Your task to perform on an android device: turn on bluetooth scan Image 0: 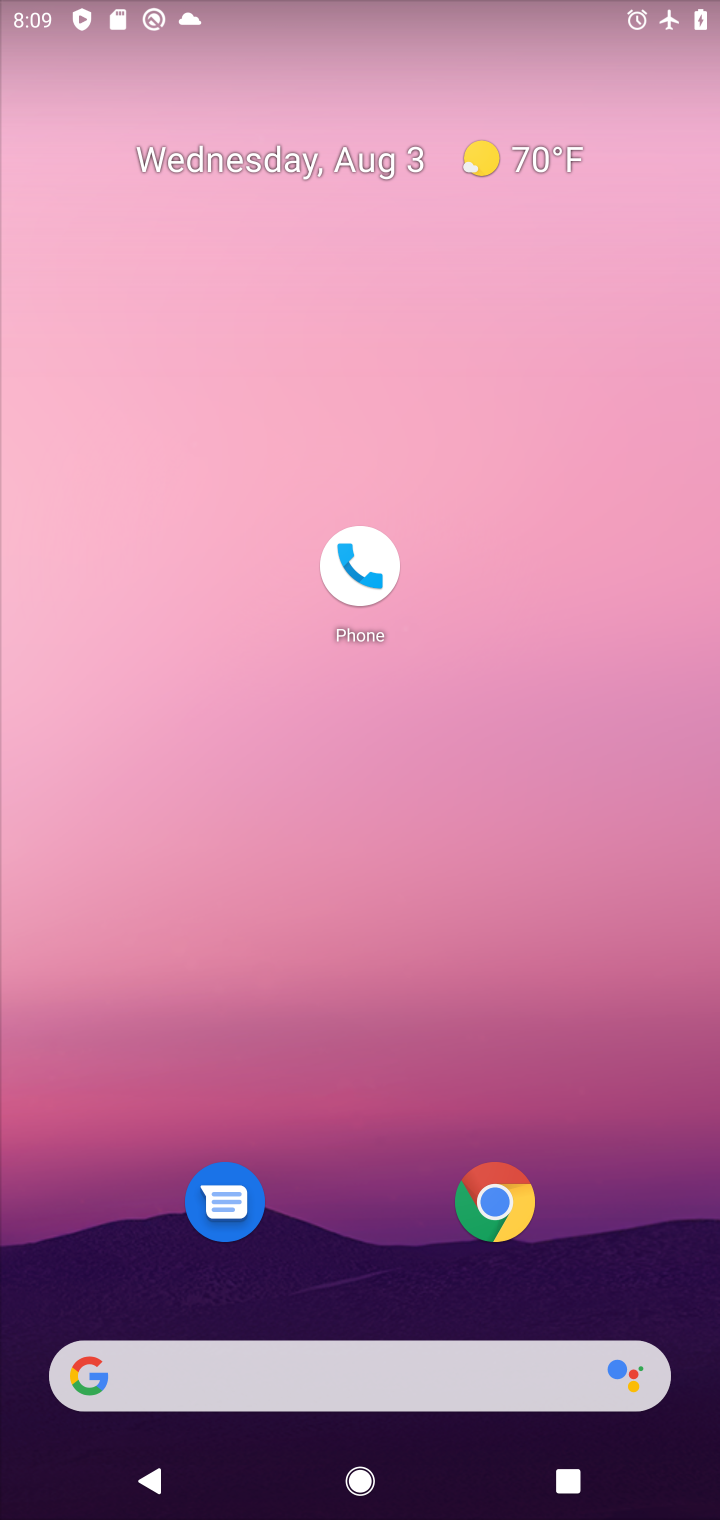
Step 0: drag from (283, 1384) to (467, 334)
Your task to perform on an android device: turn on bluetooth scan Image 1: 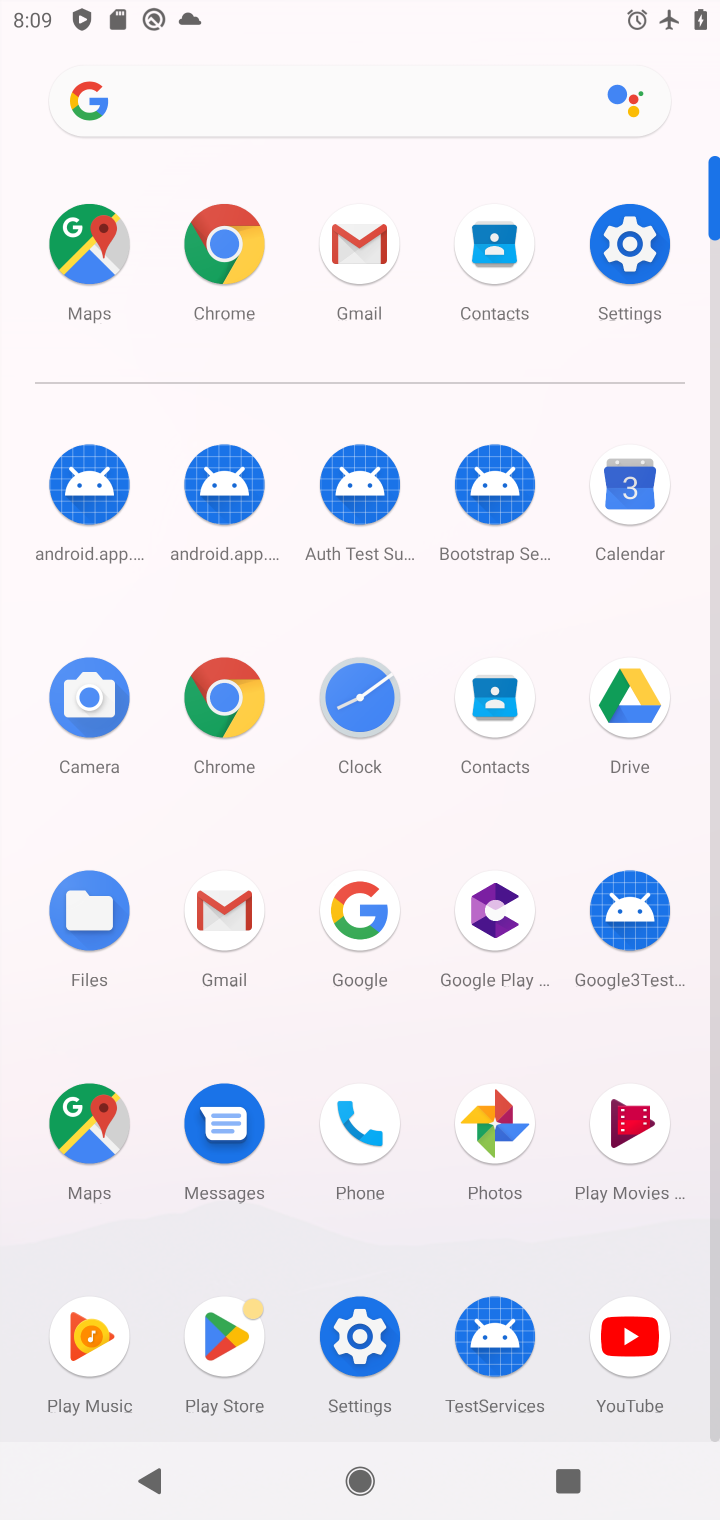
Step 1: click (627, 247)
Your task to perform on an android device: turn on bluetooth scan Image 2: 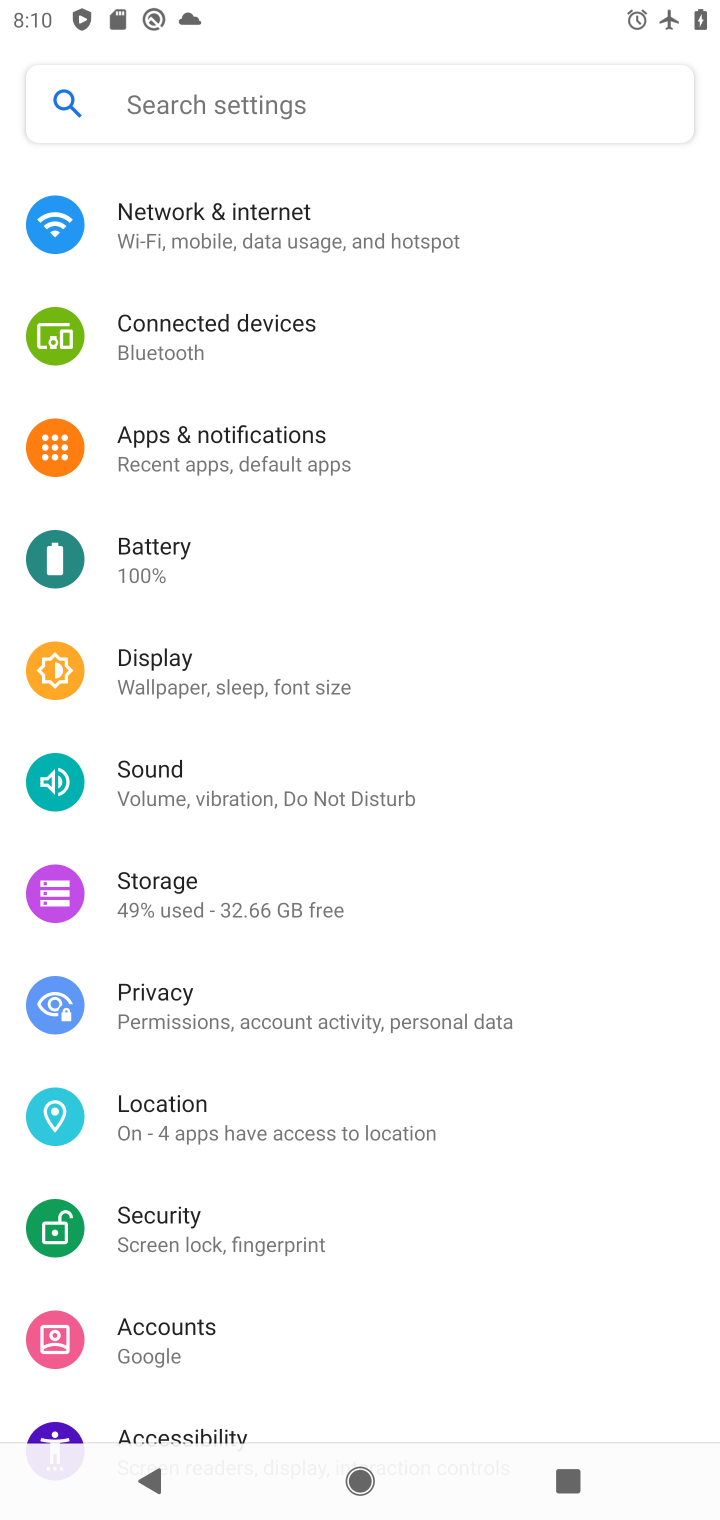
Step 2: click (201, 1113)
Your task to perform on an android device: turn on bluetooth scan Image 3: 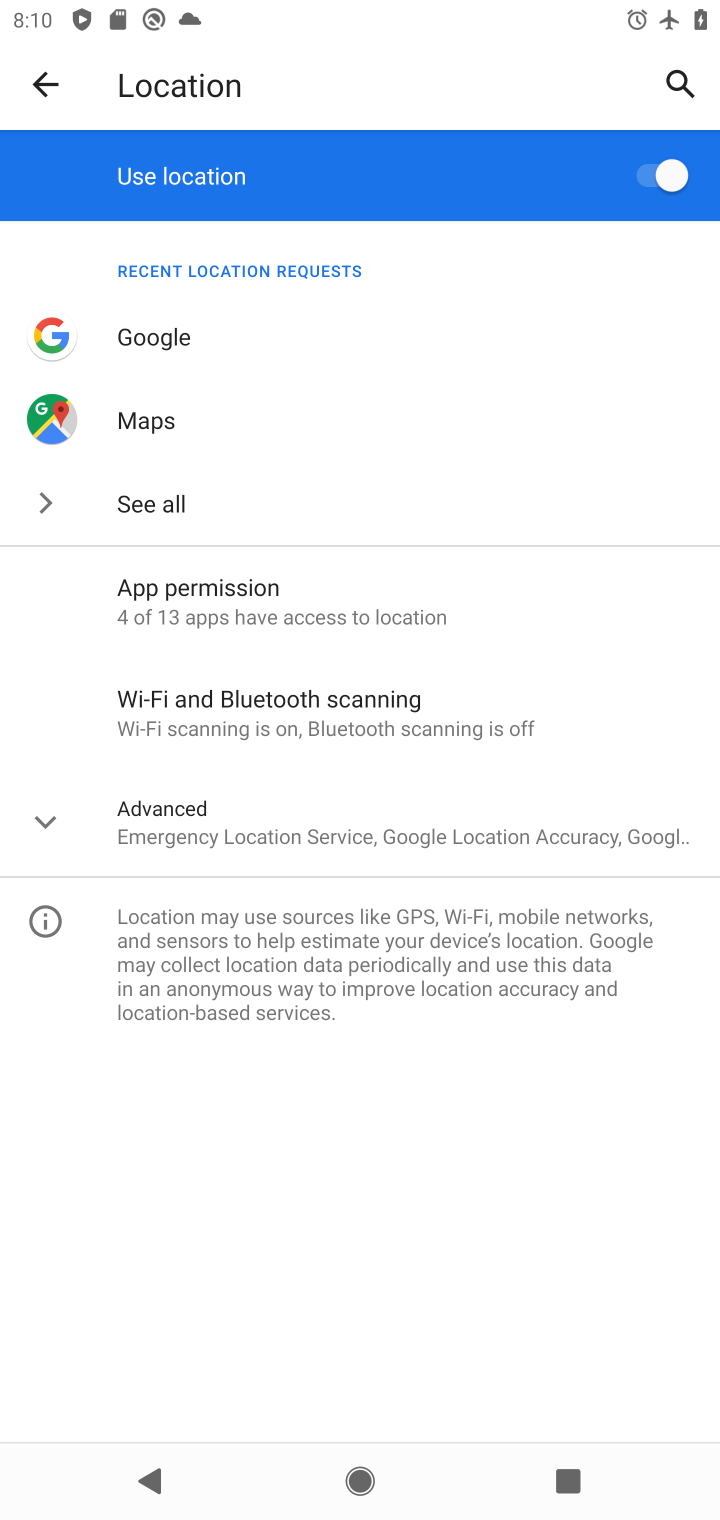
Step 3: click (348, 738)
Your task to perform on an android device: turn on bluetooth scan Image 4: 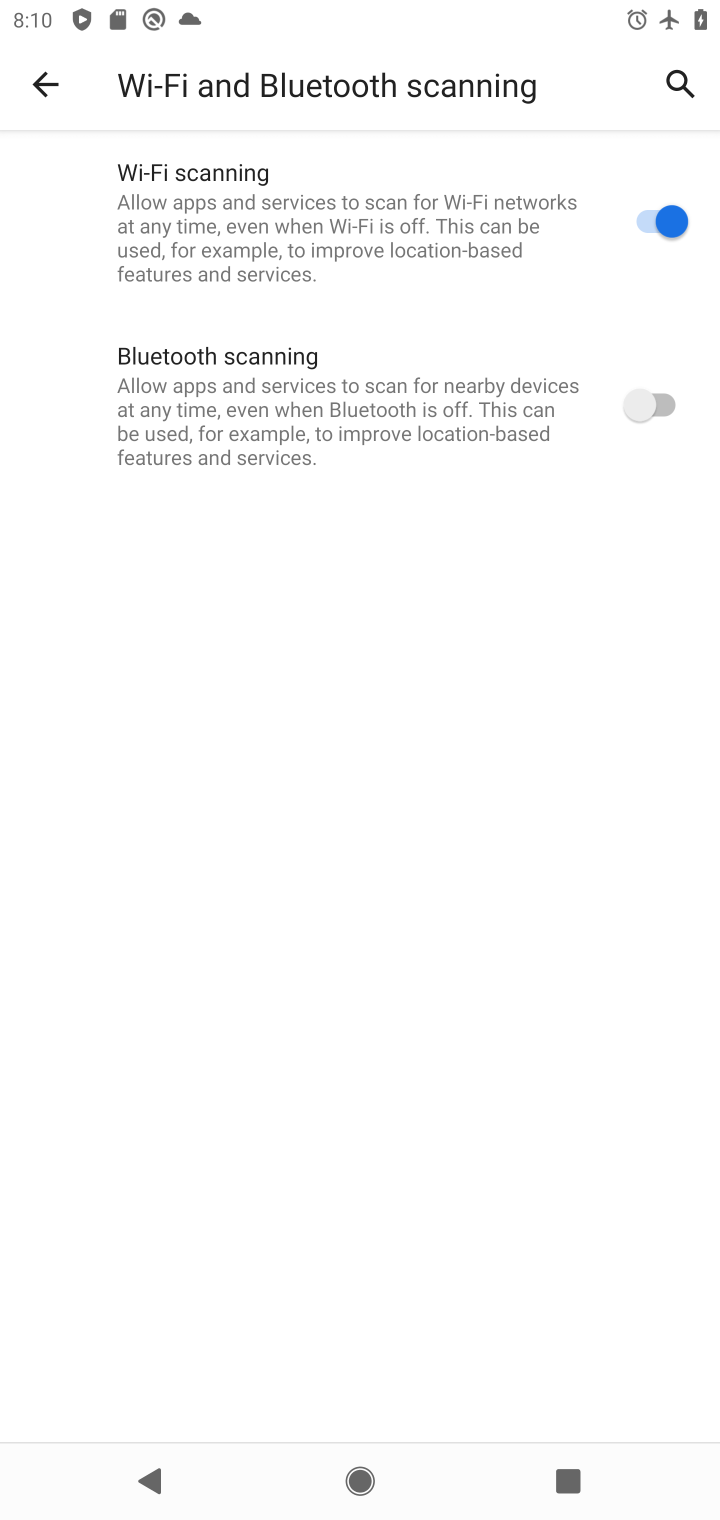
Step 4: click (634, 400)
Your task to perform on an android device: turn on bluetooth scan Image 5: 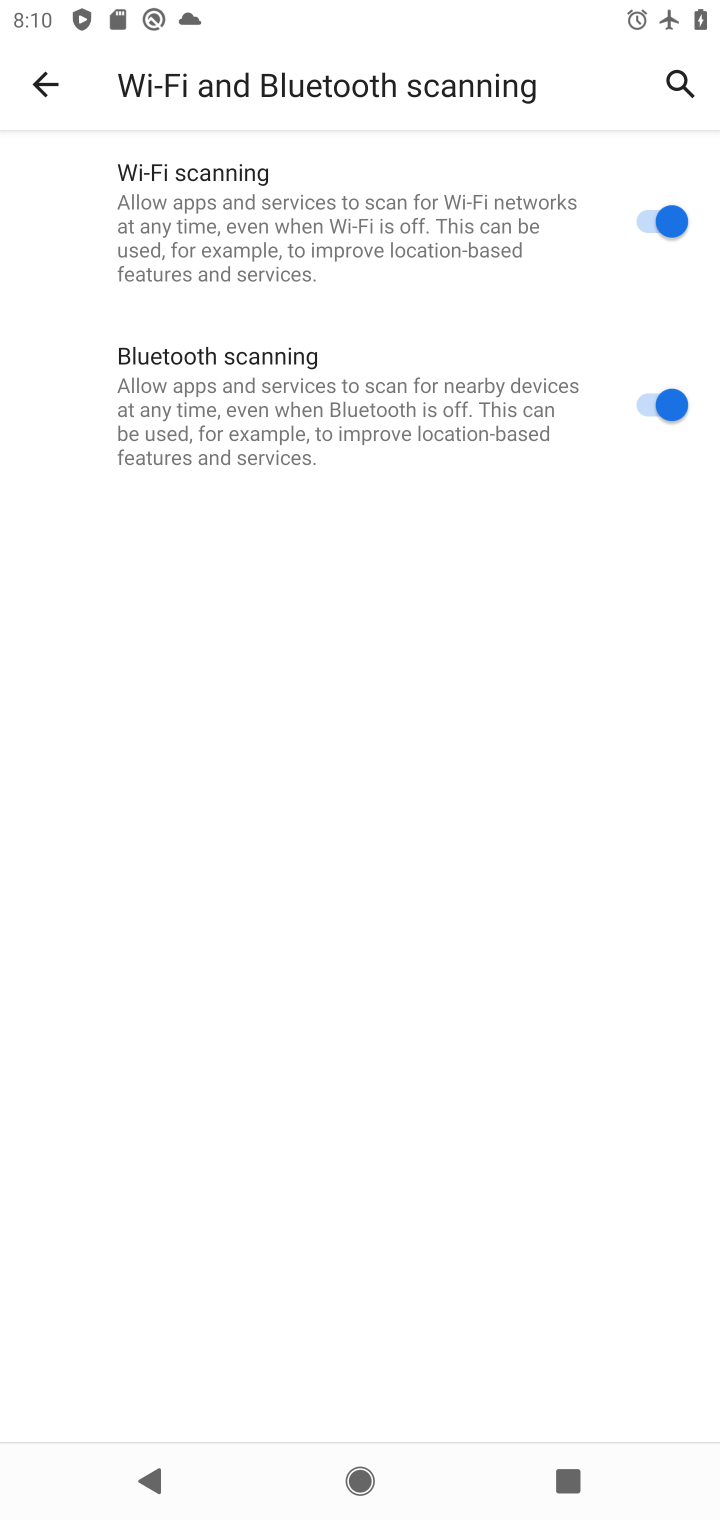
Step 5: task complete